Your task to perform on an android device: Open display settings Image 0: 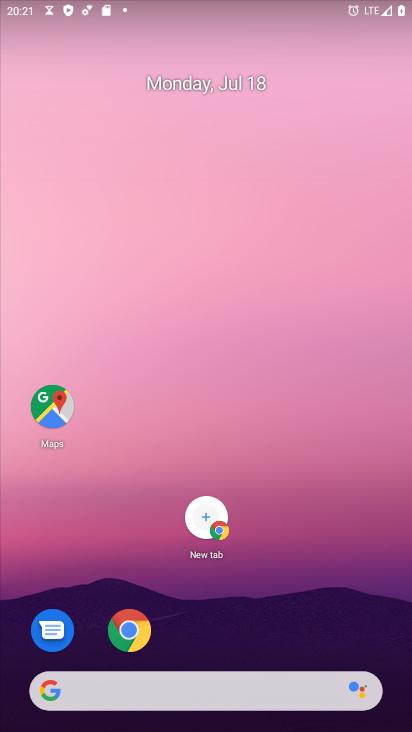
Step 0: drag from (210, 677) to (301, 167)
Your task to perform on an android device: Open display settings Image 1: 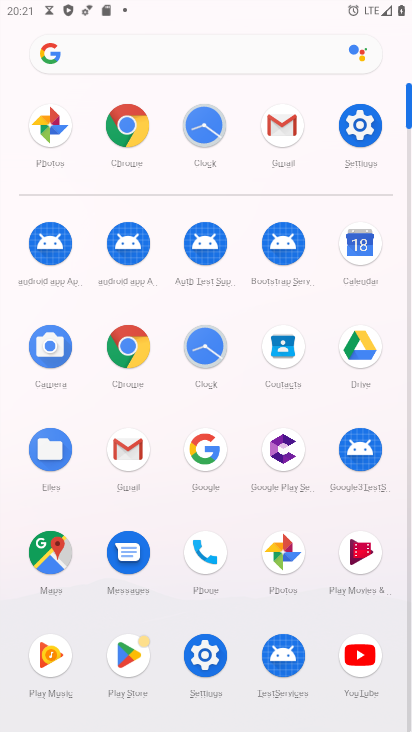
Step 1: click (358, 120)
Your task to perform on an android device: Open display settings Image 2: 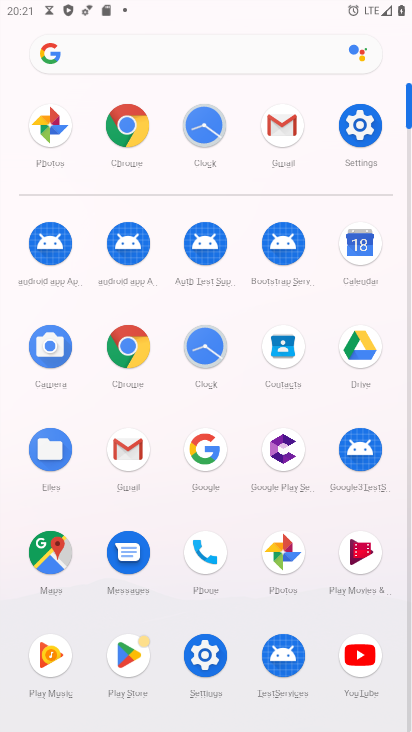
Step 2: click (355, 138)
Your task to perform on an android device: Open display settings Image 3: 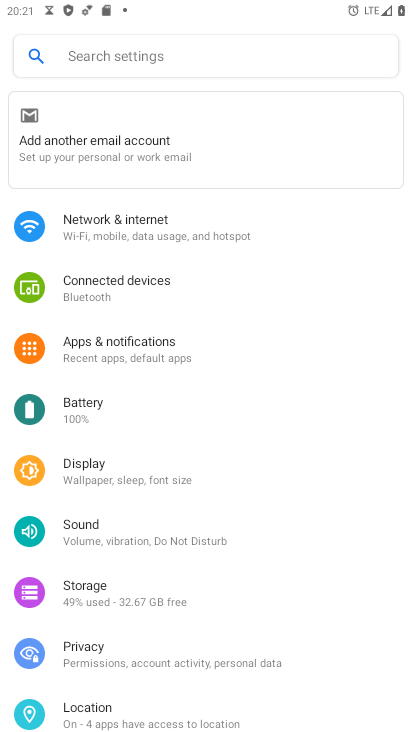
Step 3: click (77, 469)
Your task to perform on an android device: Open display settings Image 4: 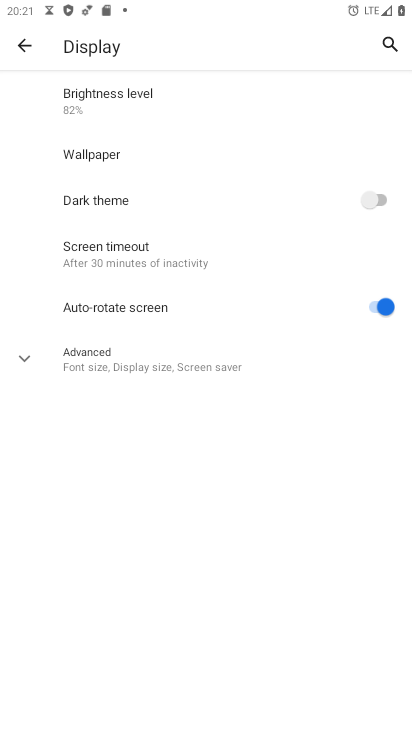
Step 4: click (107, 357)
Your task to perform on an android device: Open display settings Image 5: 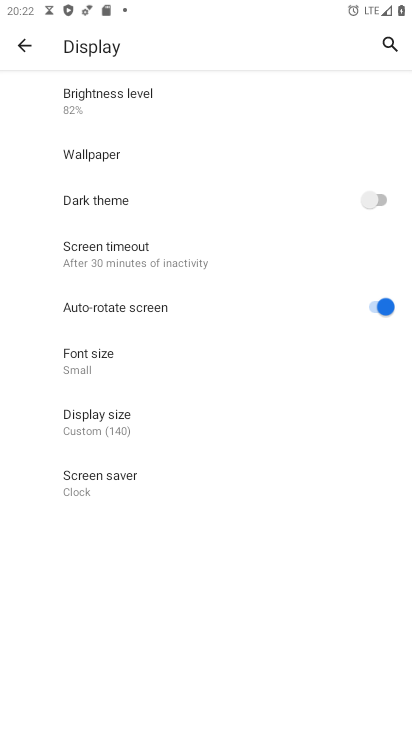
Step 5: task complete